Your task to perform on an android device: Go to accessibility settings Image 0: 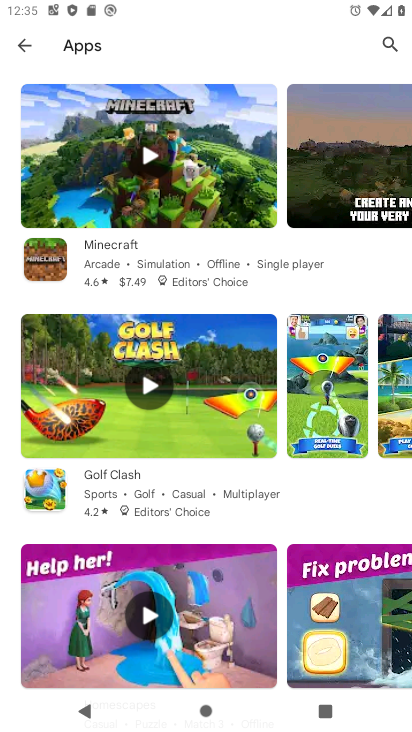
Step 0: press home button
Your task to perform on an android device: Go to accessibility settings Image 1: 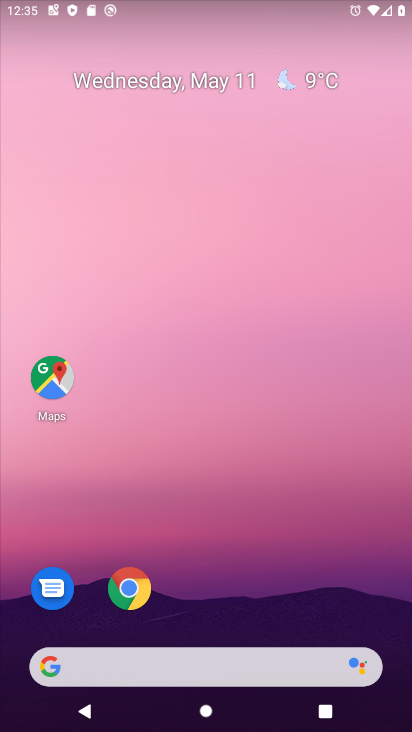
Step 1: drag from (363, 637) to (371, 52)
Your task to perform on an android device: Go to accessibility settings Image 2: 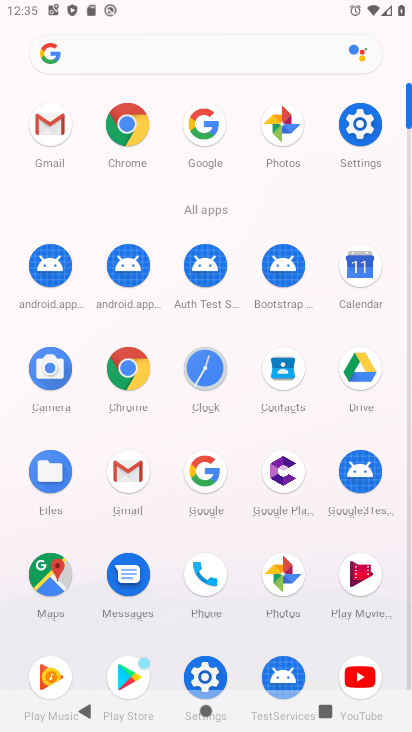
Step 2: click (357, 127)
Your task to perform on an android device: Go to accessibility settings Image 3: 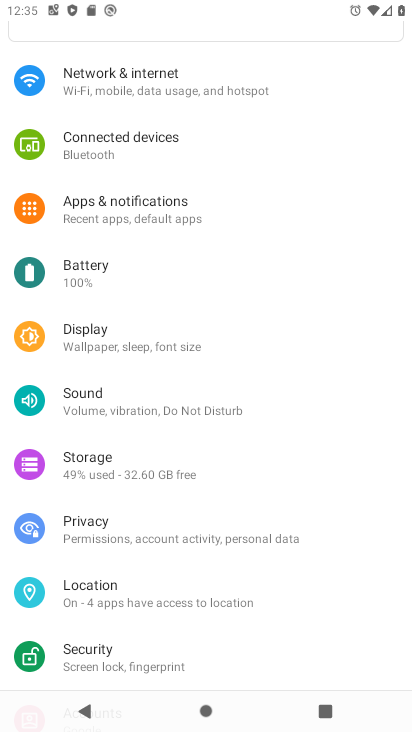
Step 3: drag from (255, 583) to (241, 295)
Your task to perform on an android device: Go to accessibility settings Image 4: 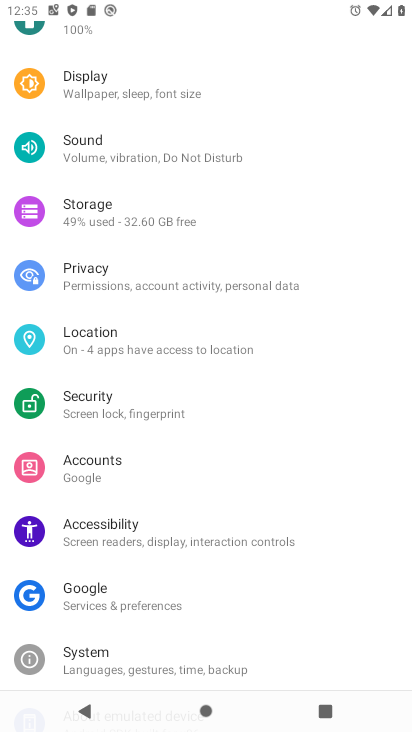
Step 4: click (73, 530)
Your task to perform on an android device: Go to accessibility settings Image 5: 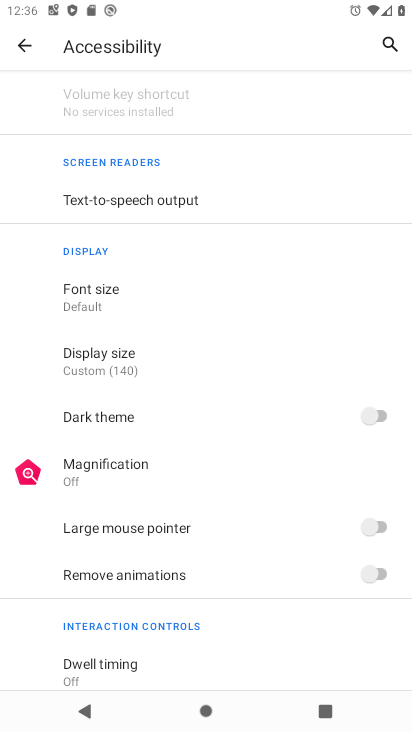
Step 5: task complete